Your task to perform on an android device: turn off location history Image 0: 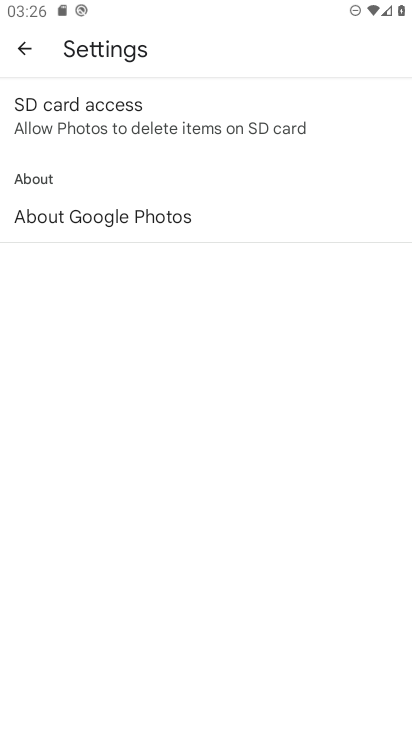
Step 0: press home button
Your task to perform on an android device: turn off location history Image 1: 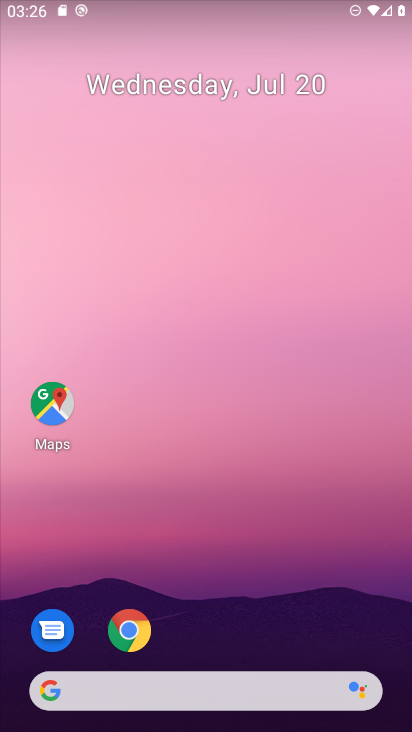
Step 1: drag from (336, 590) to (362, 116)
Your task to perform on an android device: turn off location history Image 2: 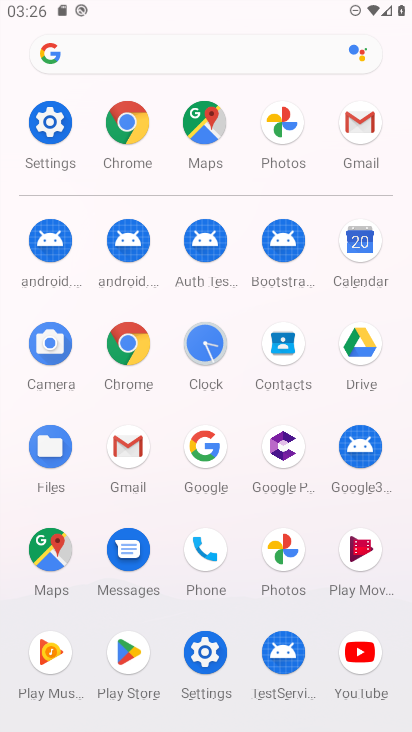
Step 2: click (209, 641)
Your task to perform on an android device: turn off location history Image 3: 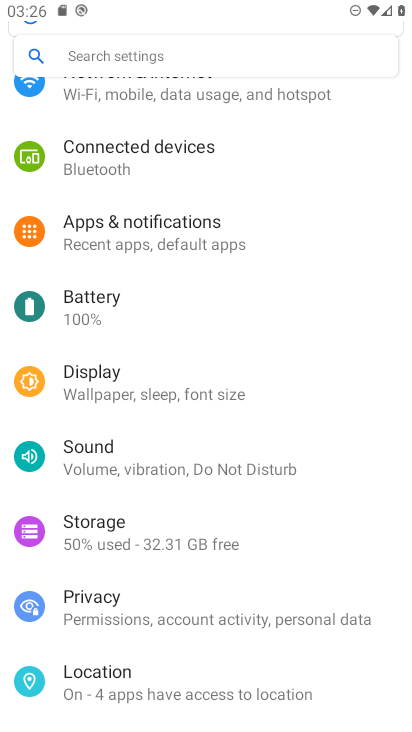
Step 3: click (284, 680)
Your task to perform on an android device: turn off location history Image 4: 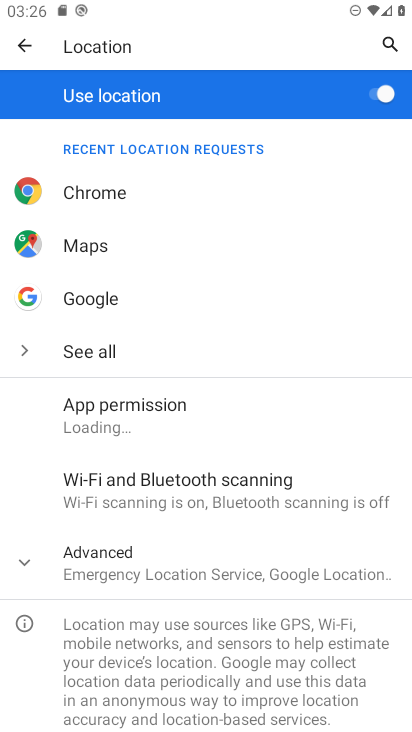
Step 4: click (331, 570)
Your task to perform on an android device: turn off location history Image 5: 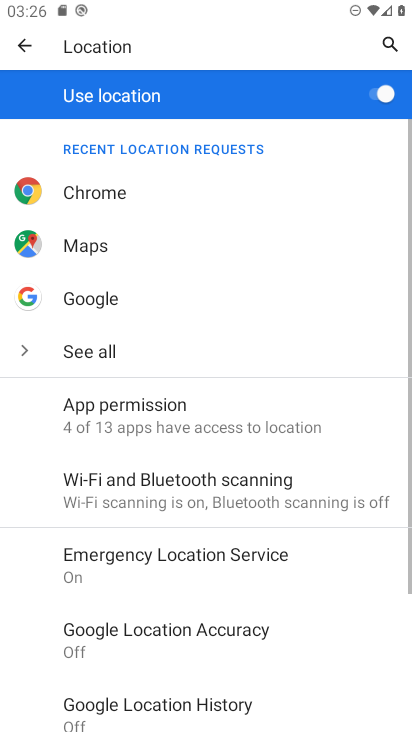
Step 5: task complete